Your task to perform on an android device: install app "PlayWell" Image 0: 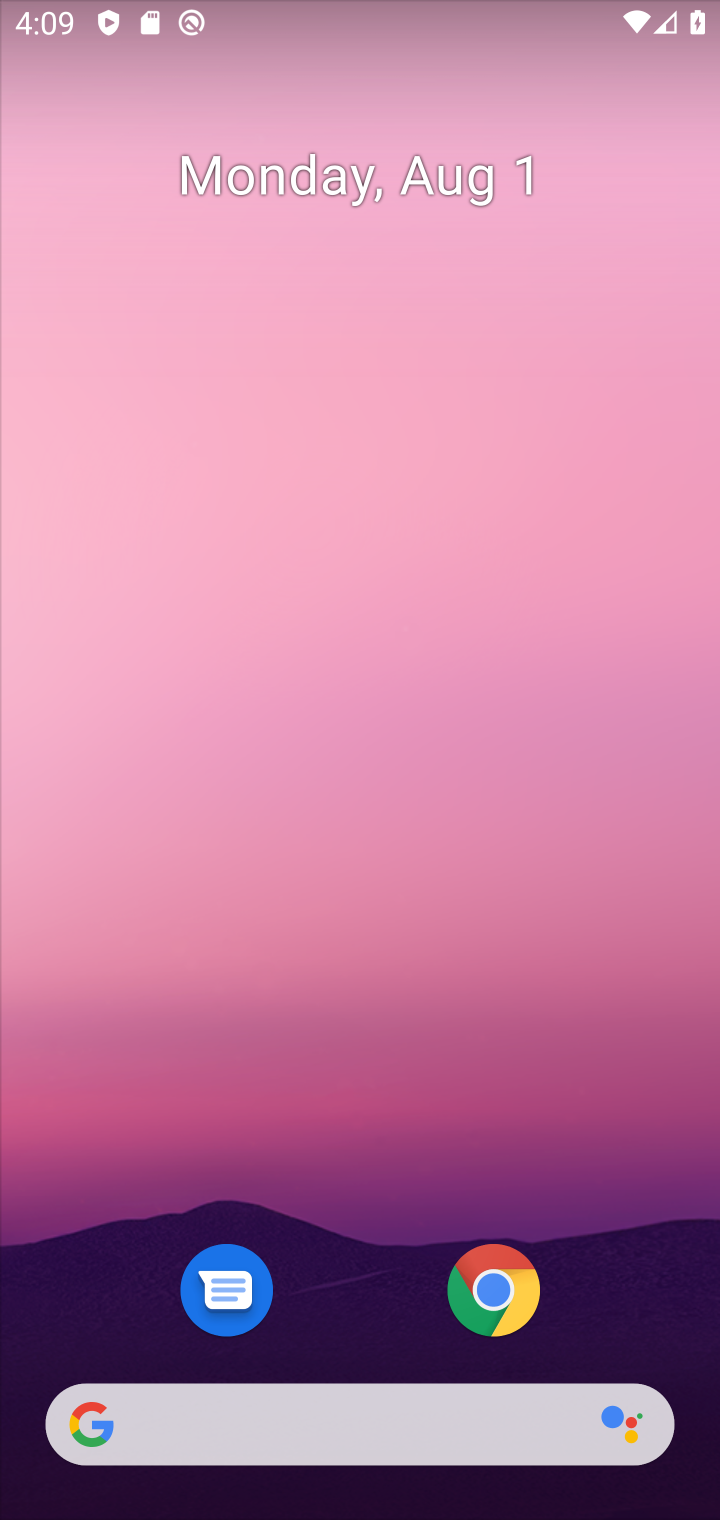
Step 0: drag from (311, 512) to (443, 2)
Your task to perform on an android device: install app "PlayWell" Image 1: 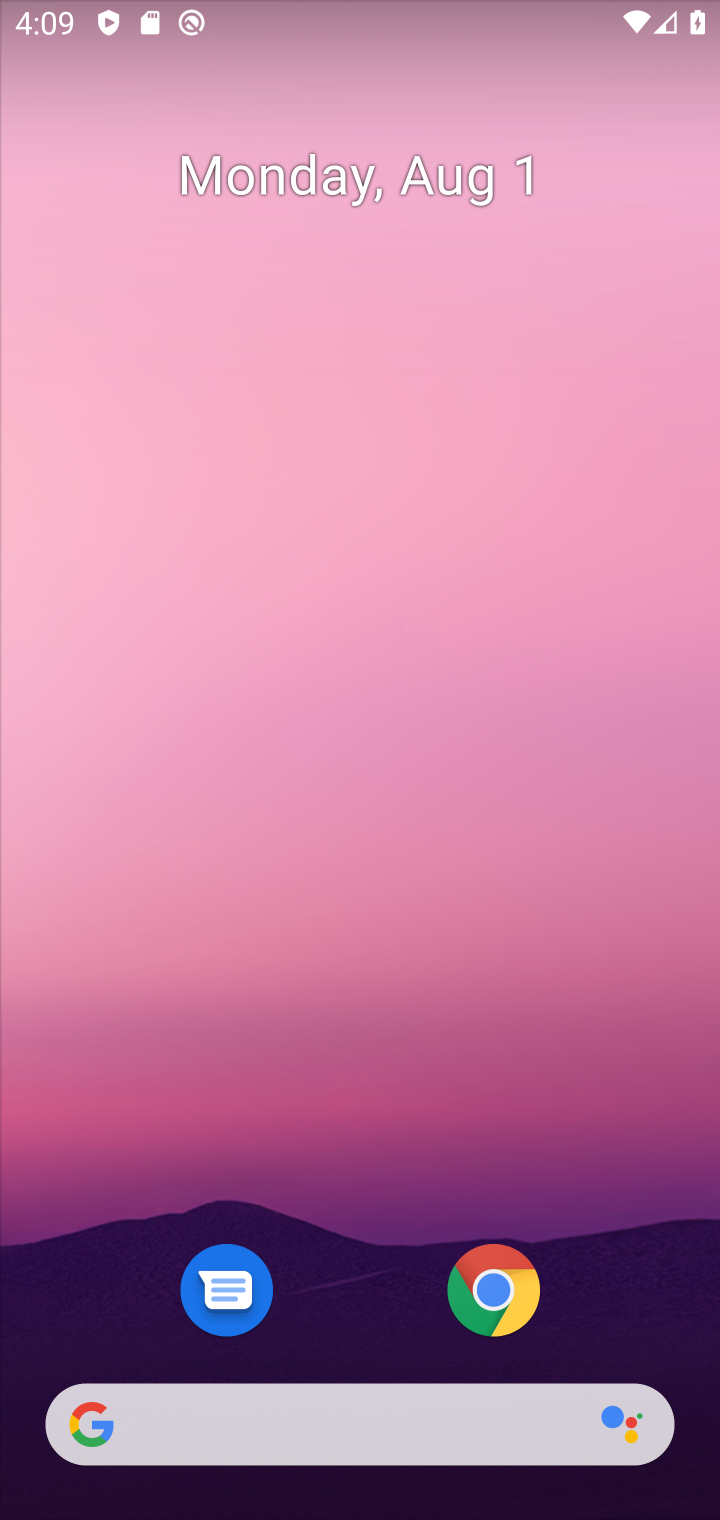
Step 1: drag from (470, 1417) to (571, 102)
Your task to perform on an android device: install app "PlayWell" Image 2: 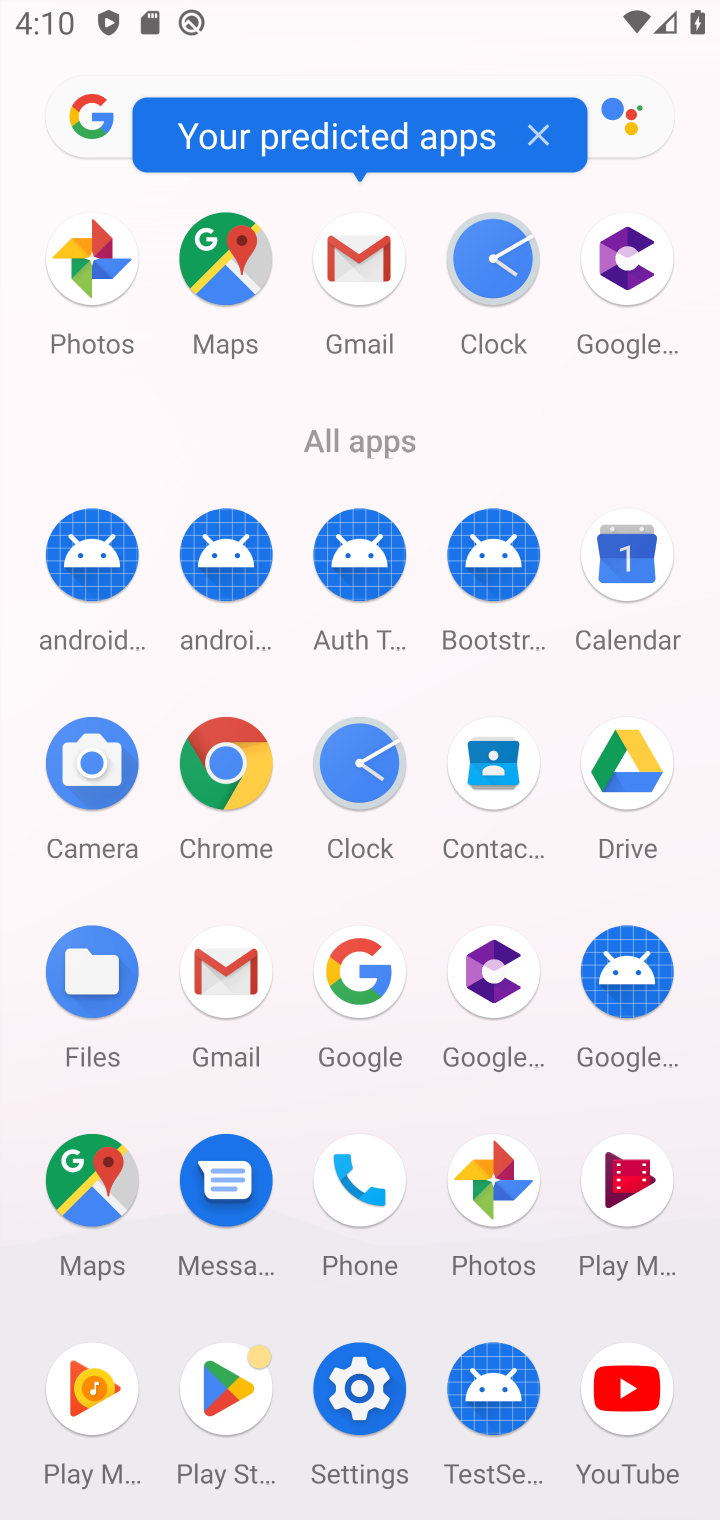
Step 2: click (253, 1373)
Your task to perform on an android device: install app "PlayWell" Image 3: 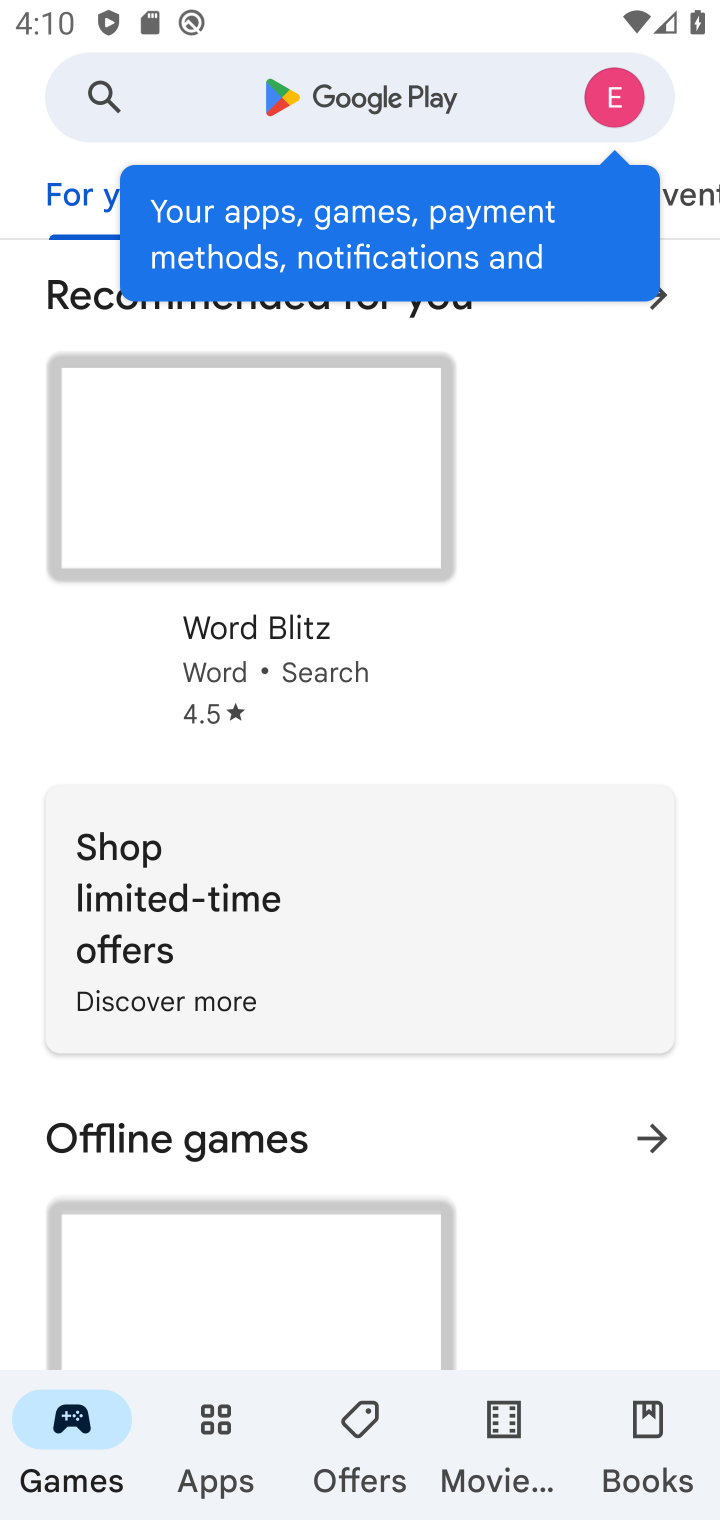
Step 3: click (329, 82)
Your task to perform on an android device: install app "PlayWell" Image 4: 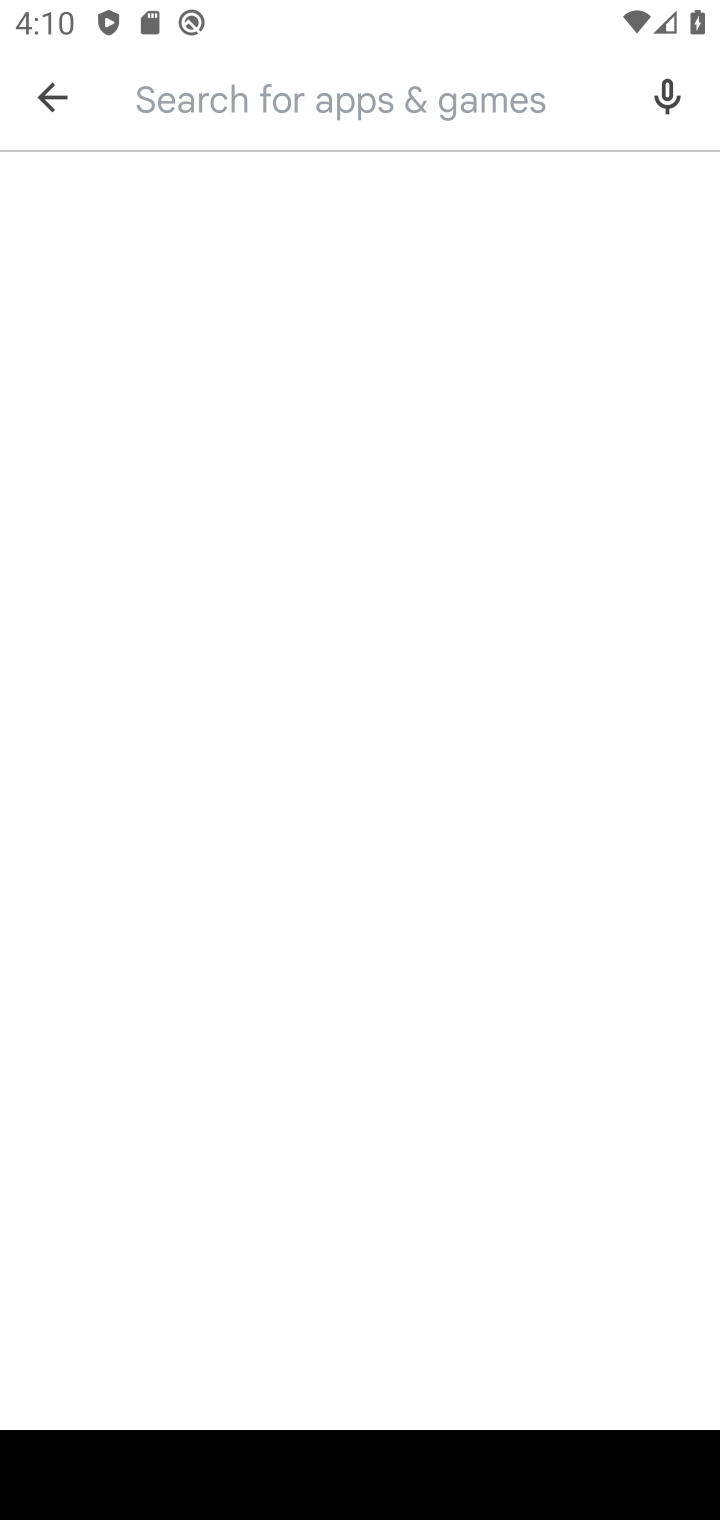
Step 4: type "playwell"
Your task to perform on an android device: install app "PlayWell" Image 5: 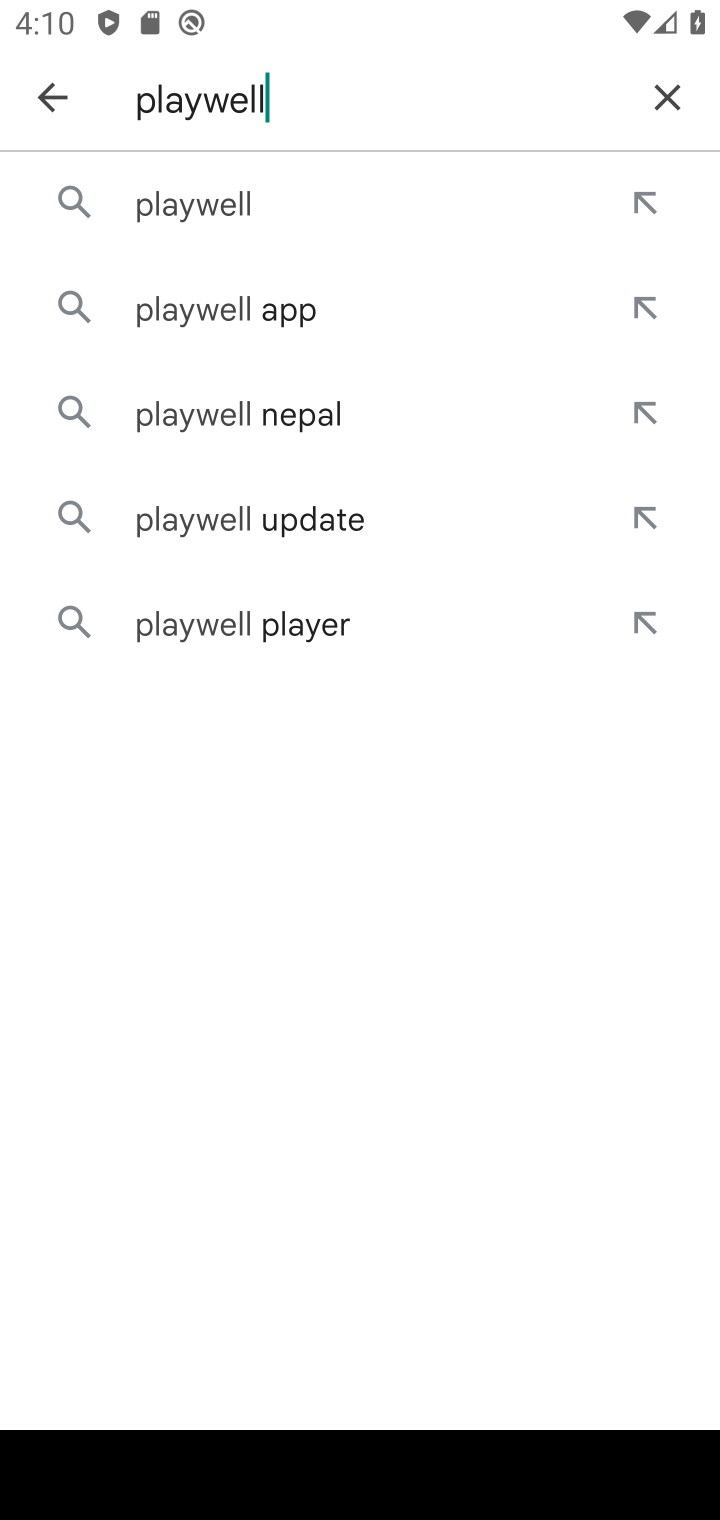
Step 5: click (267, 205)
Your task to perform on an android device: install app "PlayWell" Image 6: 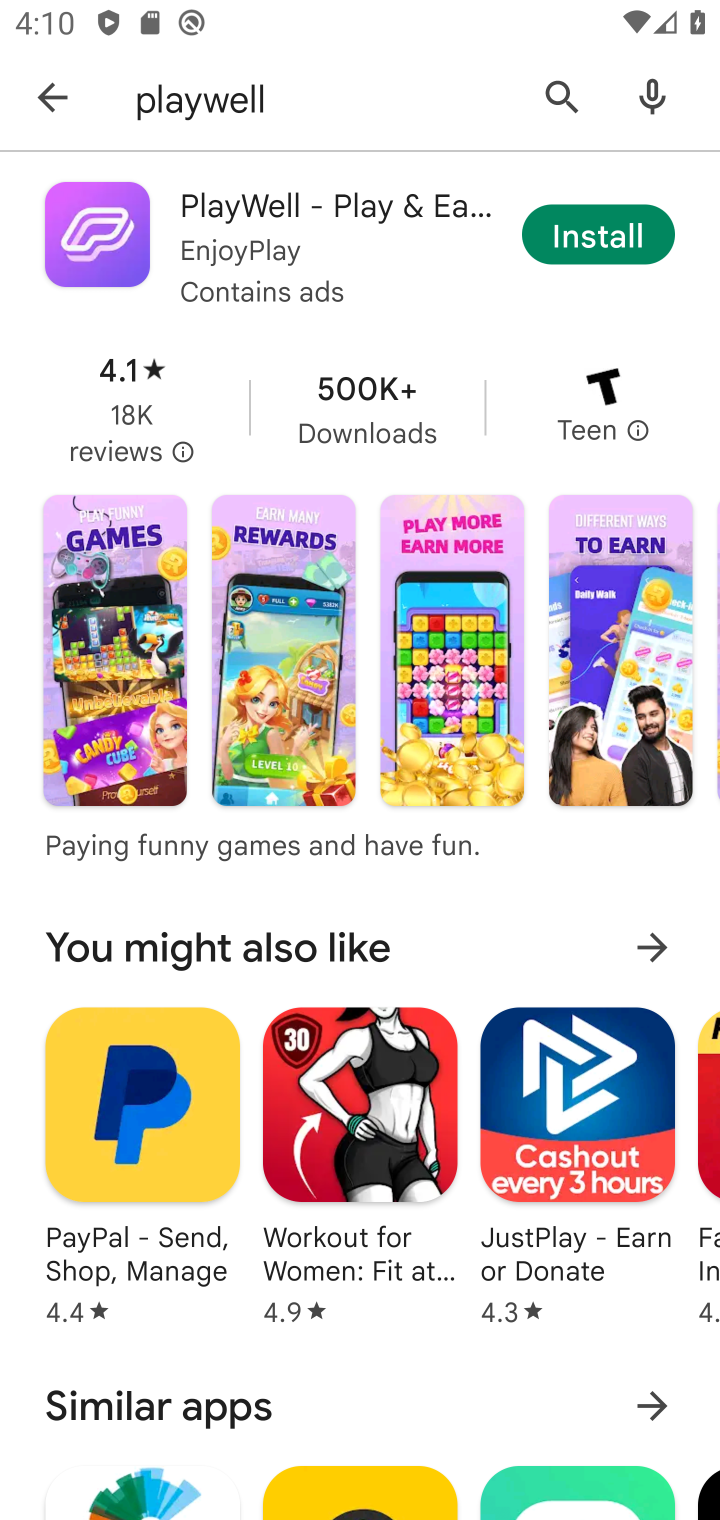
Step 6: click (619, 240)
Your task to perform on an android device: install app "PlayWell" Image 7: 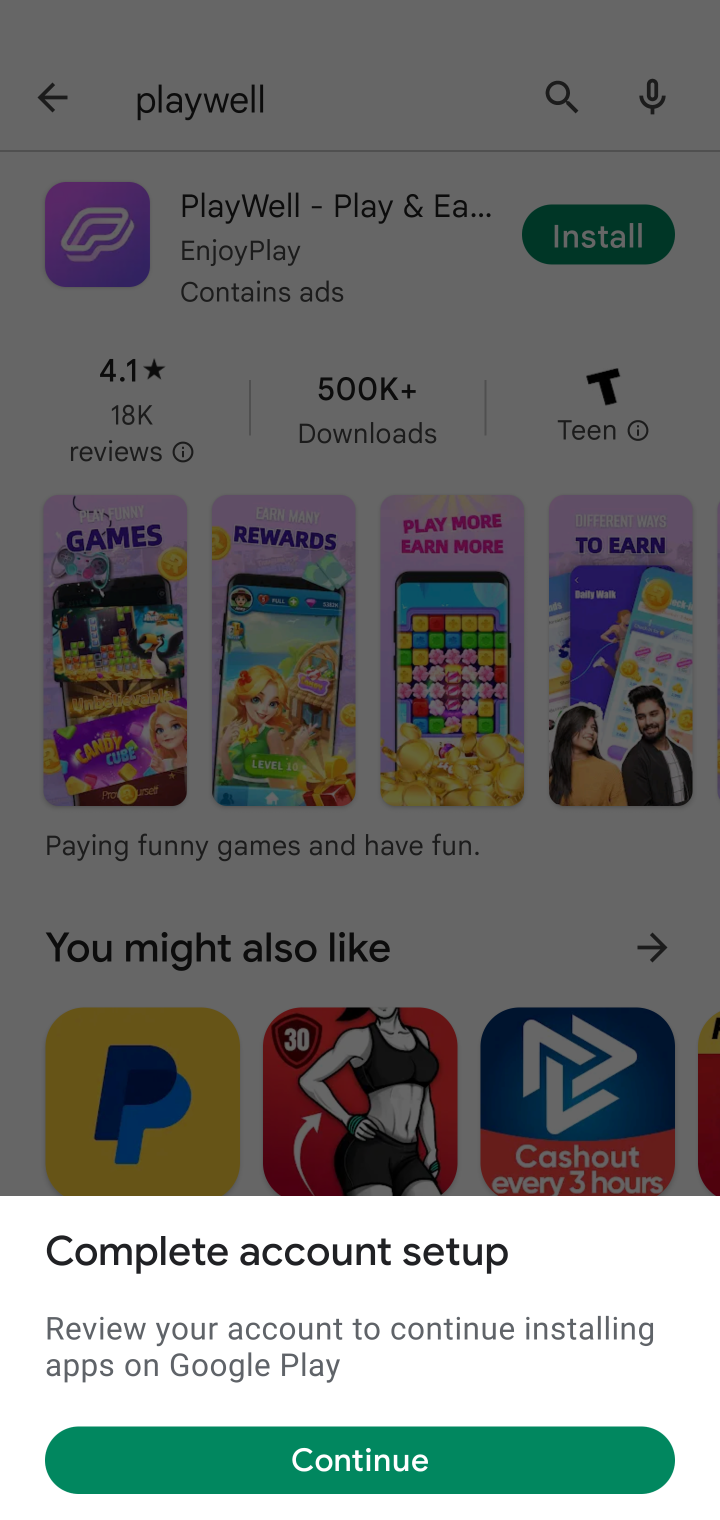
Step 7: click (357, 1476)
Your task to perform on an android device: install app "PlayWell" Image 8: 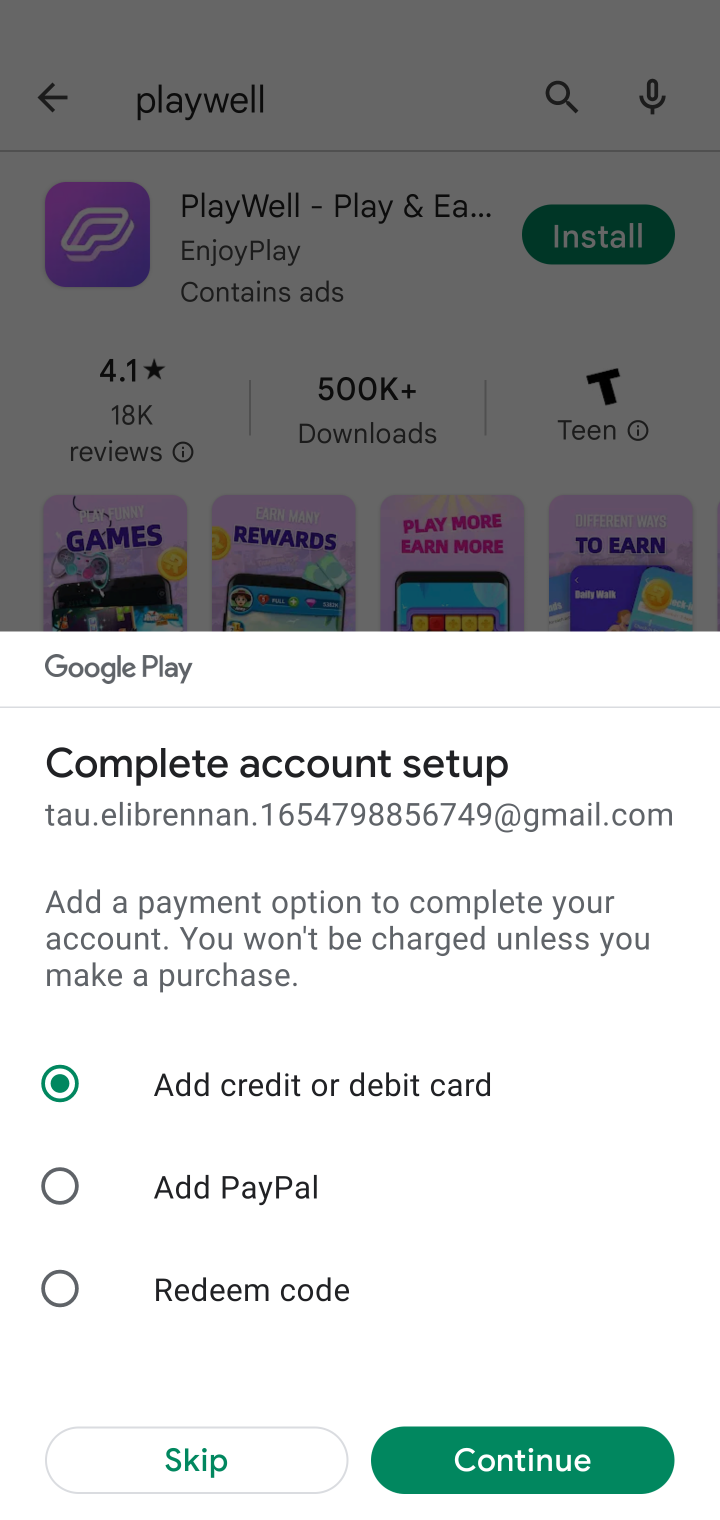
Step 8: click (183, 1471)
Your task to perform on an android device: install app "PlayWell" Image 9: 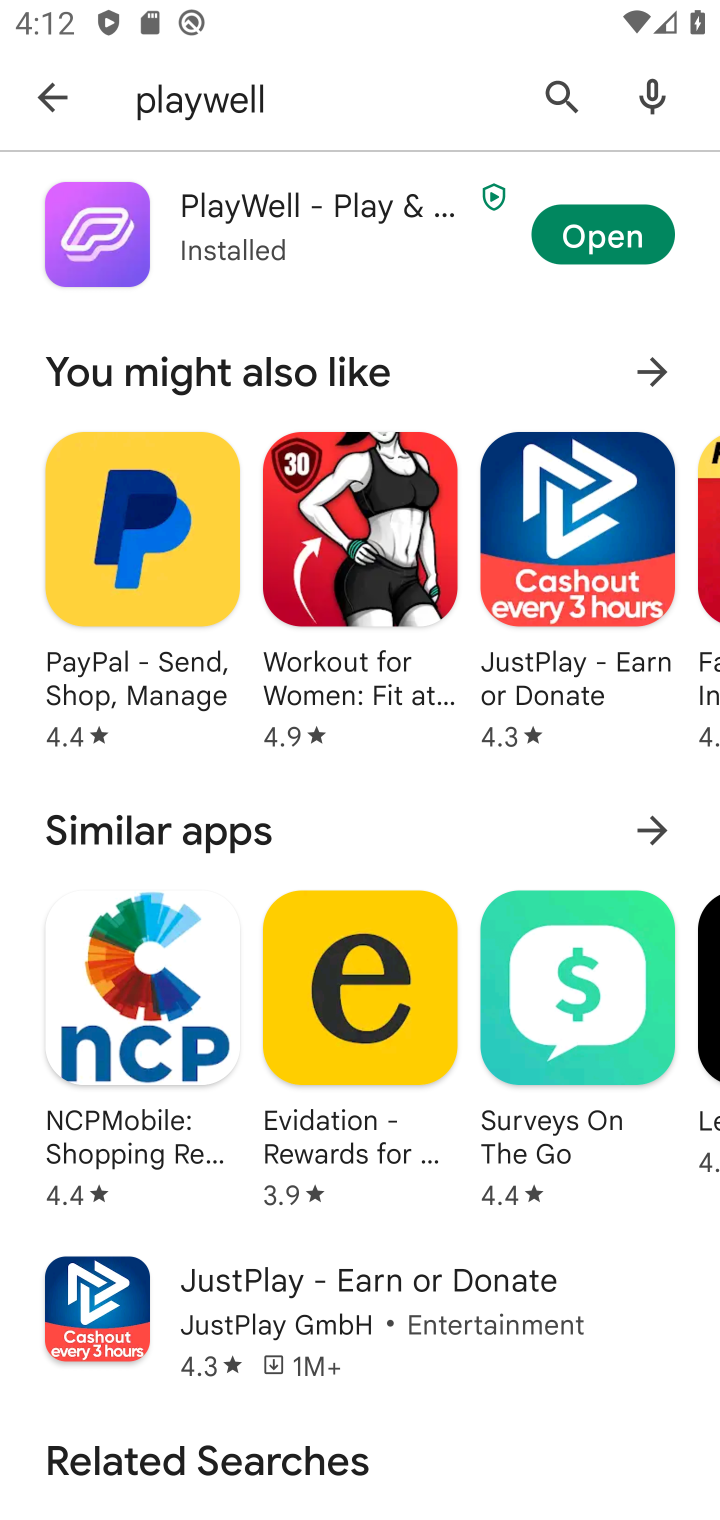
Step 9: task complete